Your task to perform on an android device: When is my next meeting? Image 0: 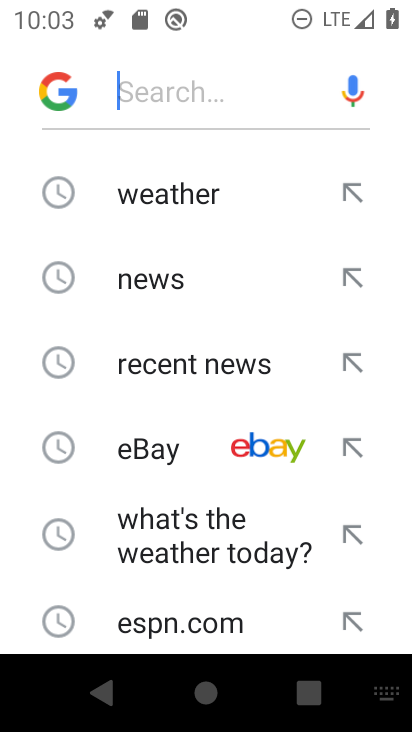
Step 0: press home button
Your task to perform on an android device: When is my next meeting? Image 1: 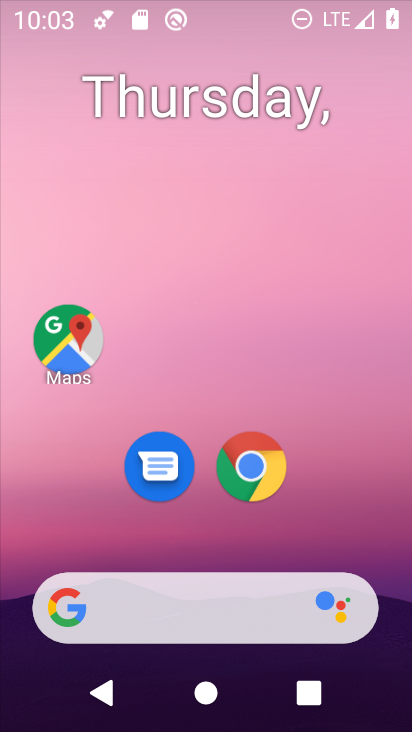
Step 1: drag from (267, 458) to (209, 163)
Your task to perform on an android device: When is my next meeting? Image 2: 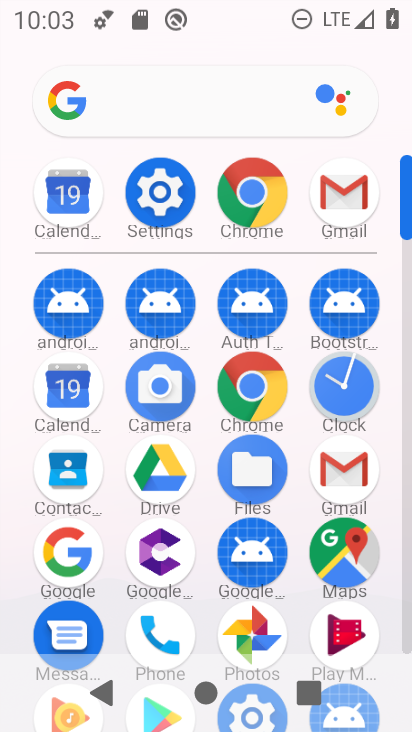
Step 2: click (76, 377)
Your task to perform on an android device: When is my next meeting? Image 3: 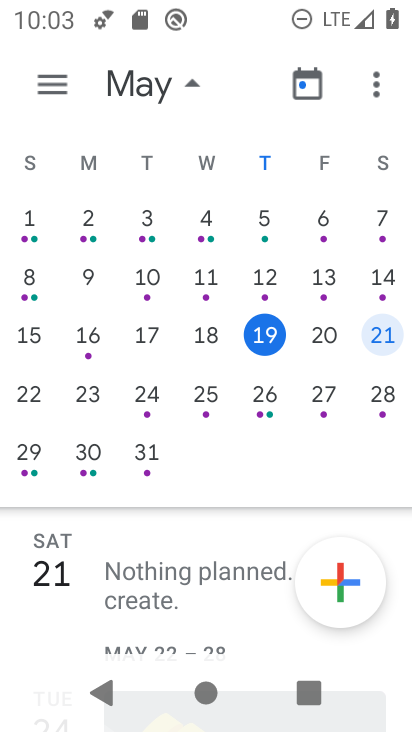
Step 3: click (310, 336)
Your task to perform on an android device: When is my next meeting? Image 4: 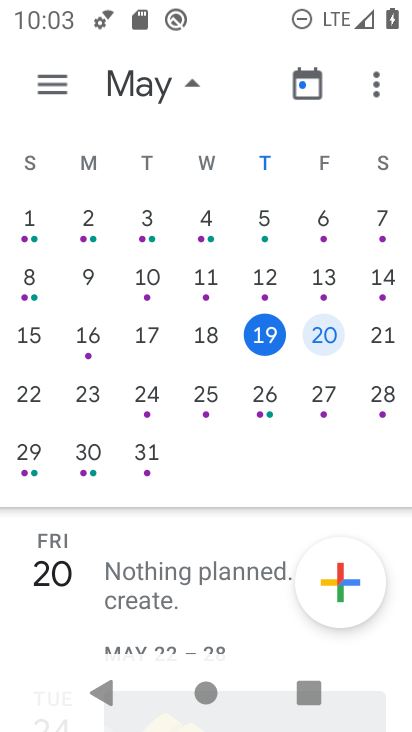
Step 4: task complete